Your task to perform on an android device: add a contact Image 0: 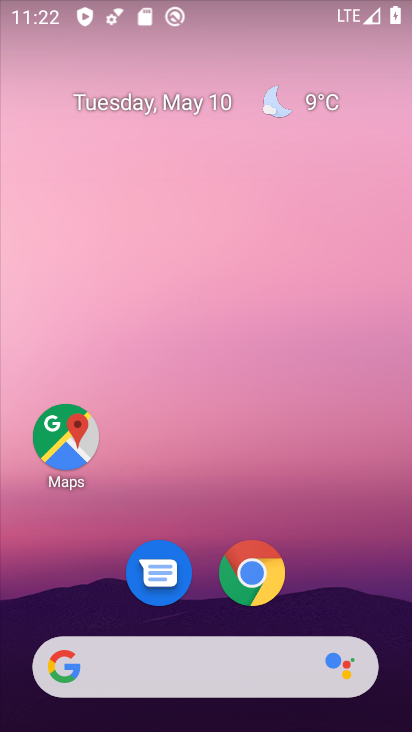
Step 0: press home button
Your task to perform on an android device: add a contact Image 1: 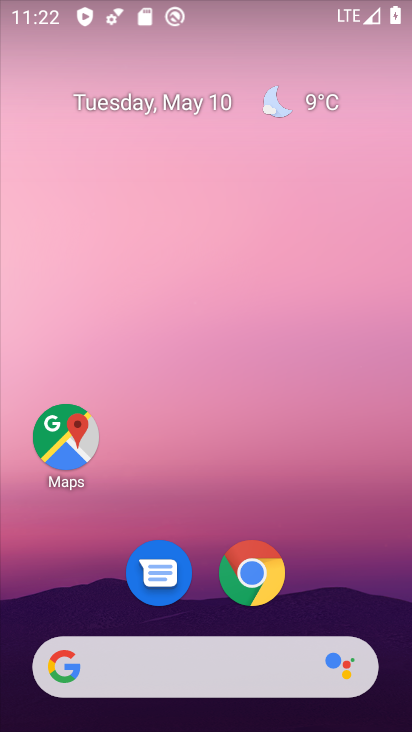
Step 1: drag from (172, 673) to (316, 92)
Your task to perform on an android device: add a contact Image 2: 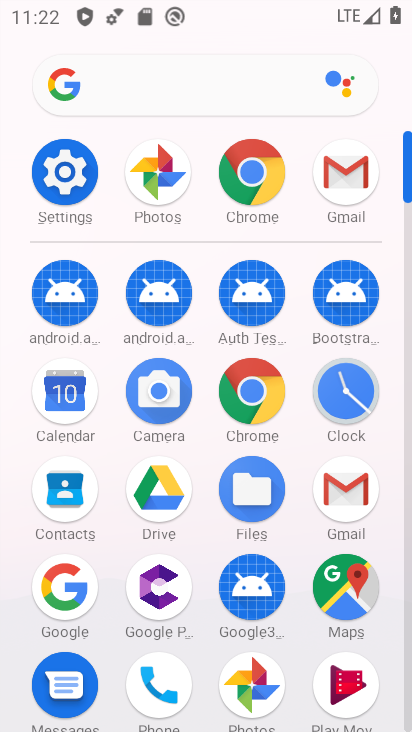
Step 2: click (58, 492)
Your task to perform on an android device: add a contact Image 3: 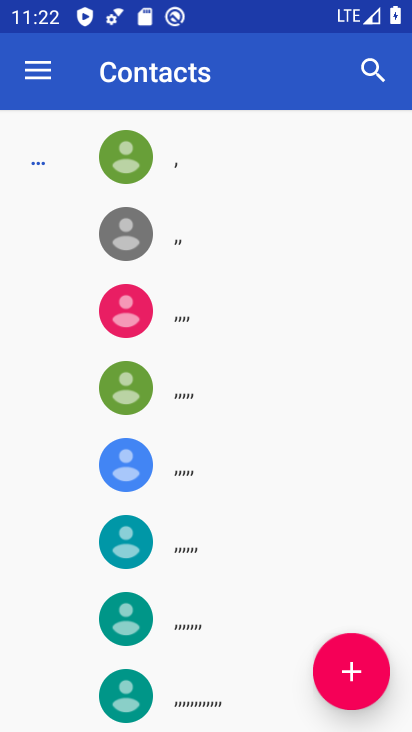
Step 3: click (351, 678)
Your task to perform on an android device: add a contact Image 4: 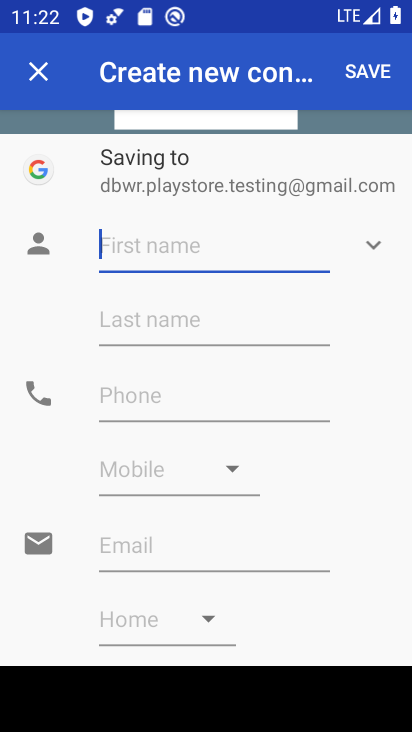
Step 4: type "djhyr"
Your task to perform on an android device: add a contact Image 5: 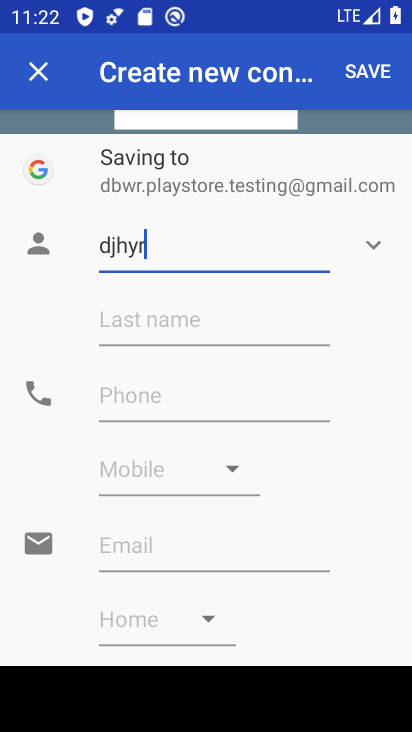
Step 5: click (147, 399)
Your task to perform on an android device: add a contact Image 6: 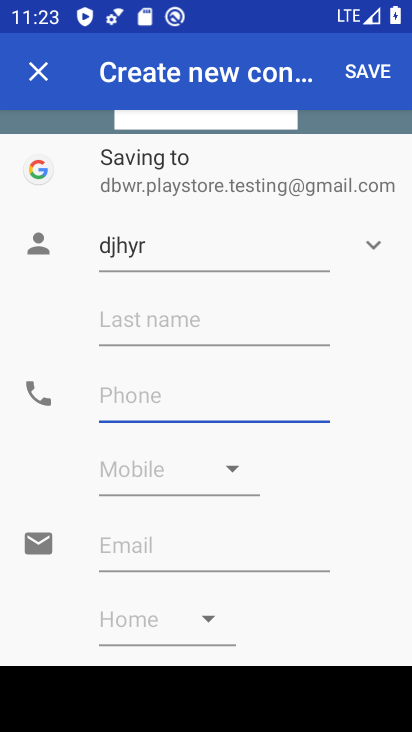
Step 6: type "2786"
Your task to perform on an android device: add a contact Image 7: 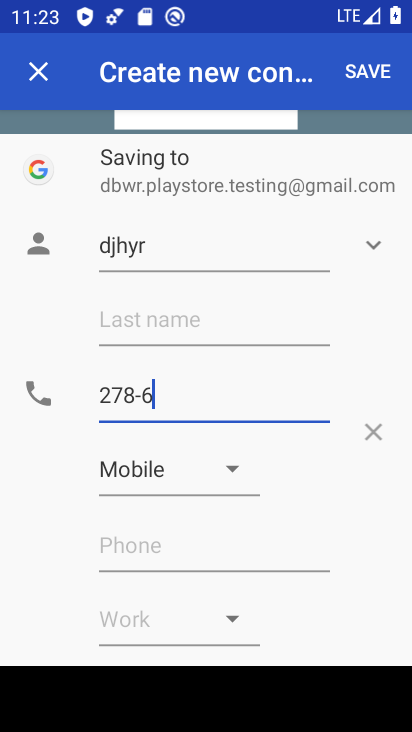
Step 7: click (363, 68)
Your task to perform on an android device: add a contact Image 8: 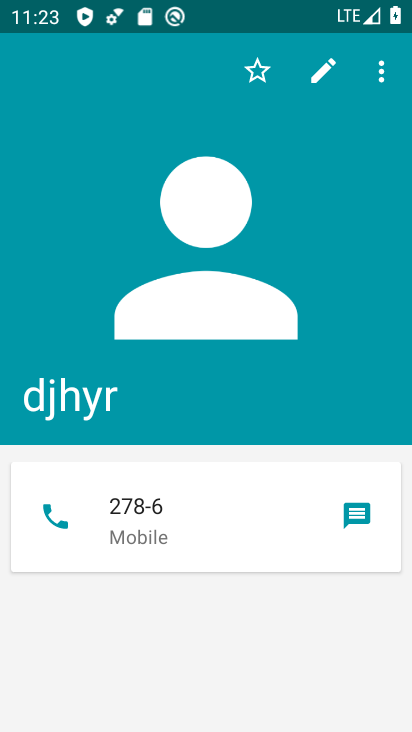
Step 8: task complete